Your task to perform on an android device: toggle javascript in the chrome app Image 0: 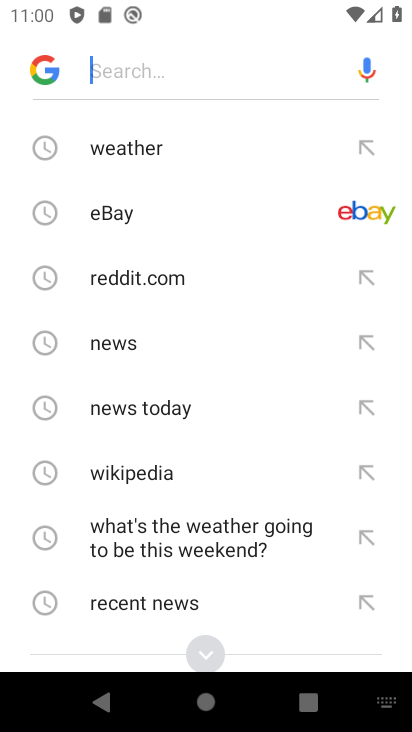
Step 0: press home button
Your task to perform on an android device: toggle javascript in the chrome app Image 1: 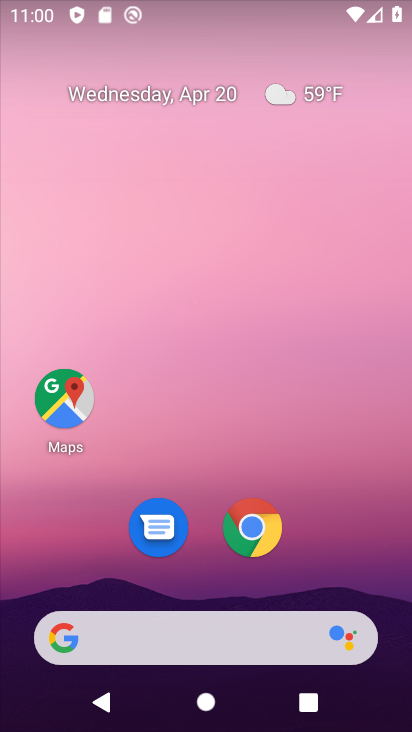
Step 1: drag from (388, 573) to (378, 131)
Your task to perform on an android device: toggle javascript in the chrome app Image 2: 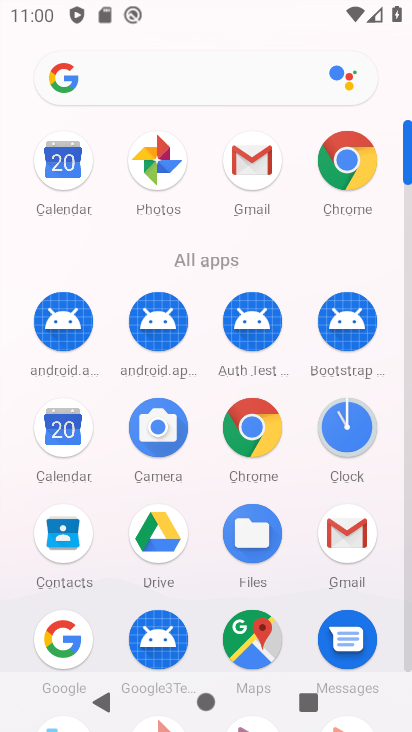
Step 2: click (366, 181)
Your task to perform on an android device: toggle javascript in the chrome app Image 3: 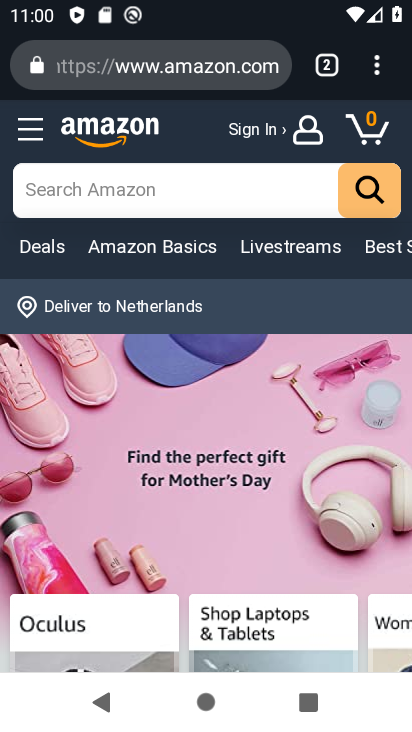
Step 3: drag from (377, 67) to (182, 578)
Your task to perform on an android device: toggle javascript in the chrome app Image 4: 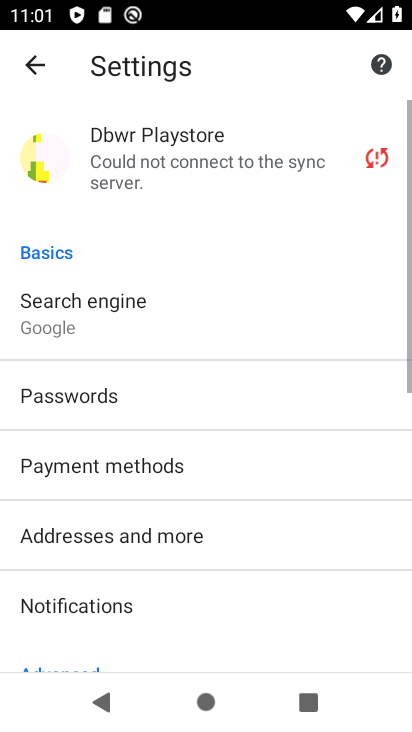
Step 4: drag from (301, 602) to (303, 358)
Your task to perform on an android device: toggle javascript in the chrome app Image 5: 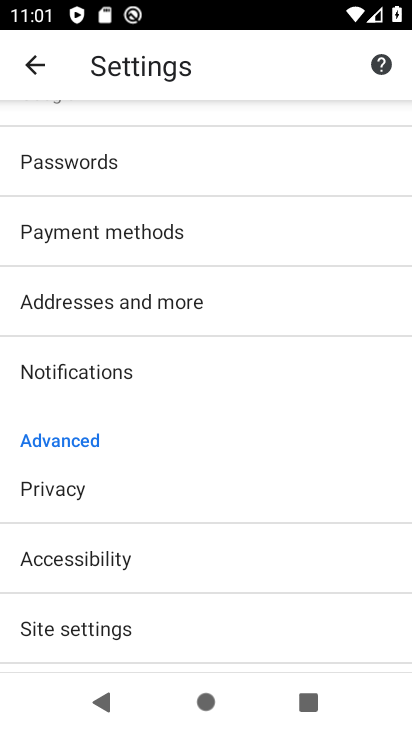
Step 5: drag from (309, 507) to (319, 309)
Your task to perform on an android device: toggle javascript in the chrome app Image 6: 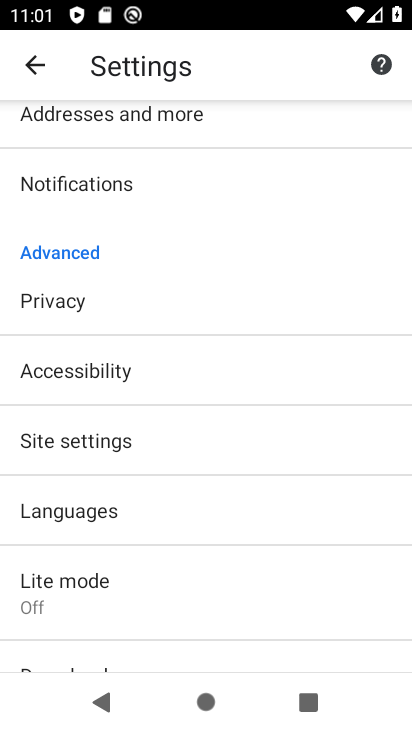
Step 6: click (77, 445)
Your task to perform on an android device: toggle javascript in the chrome app Image 7: 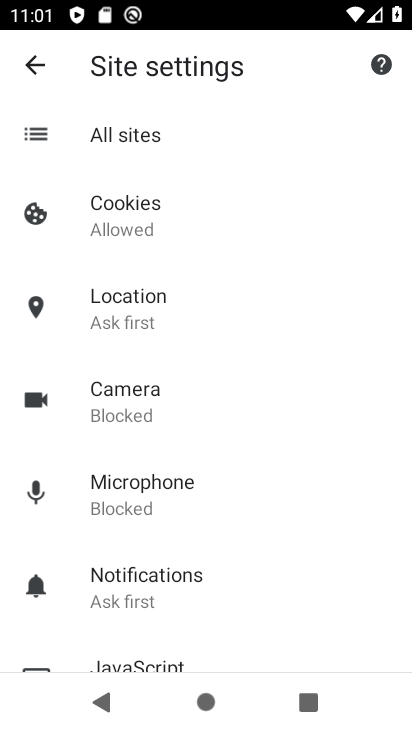
Step 7: drag from (247, 582) to (294, 292)
Your task to perform on an android device: toggle javascript in the chrome app Image 8: 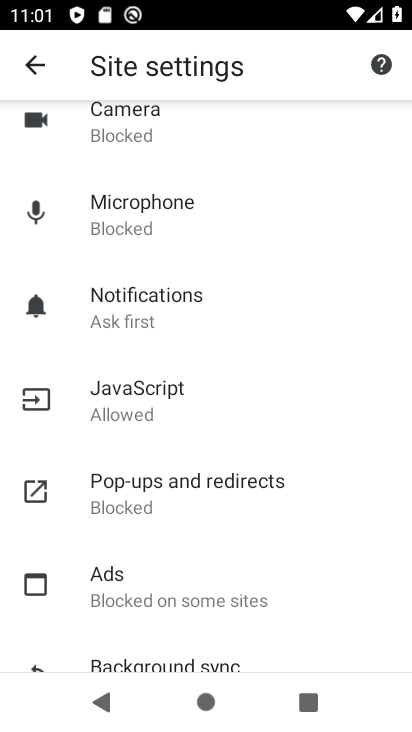
Step 8: click (180, 395)
Your task to perform on an android device: toggle javascript in the chrome app Image 9: 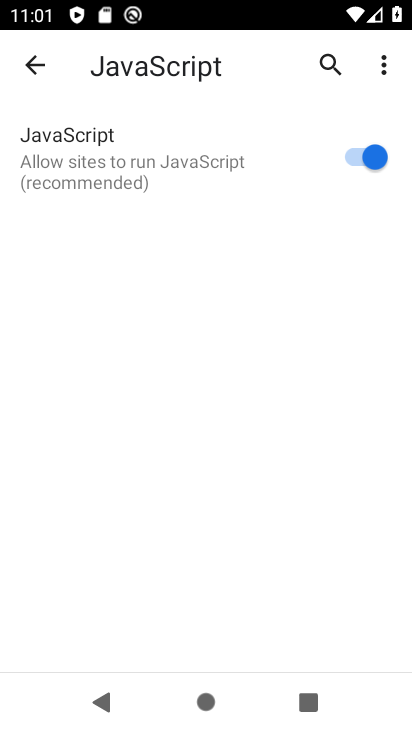
Step 9: click (352, 157)
Your task to perform on an android device: toggle javascript in the chrome app Image 10: 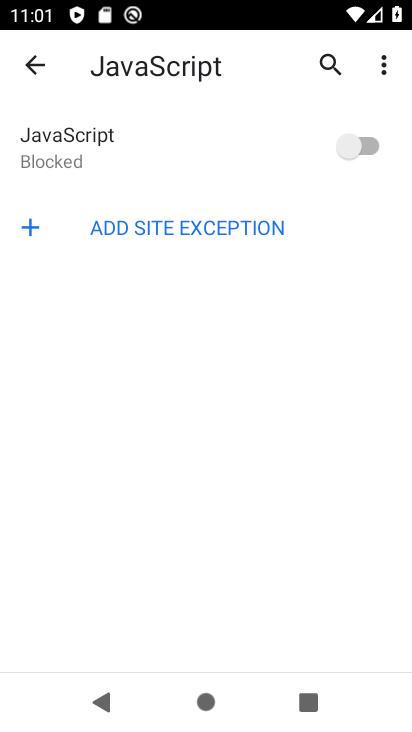
Step 10: task complete